Your task to perform on an android device: Open Chrome and go to settings Image 0: 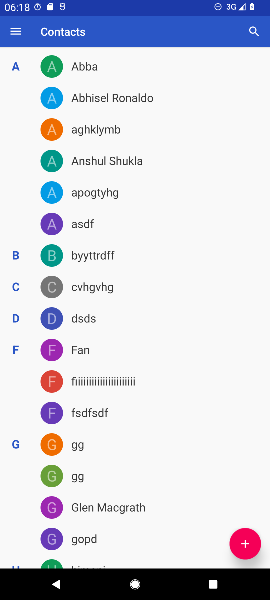
Step 0: press home button
Your task to perform on an android device: Open Chrome and go to settings Image 1: 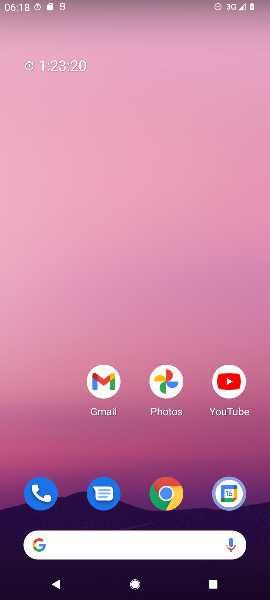
Step 1: drag from (69, 439) to (51, 199)
Your task to perform on an android device: Open Chrome and go to settings Image 2: 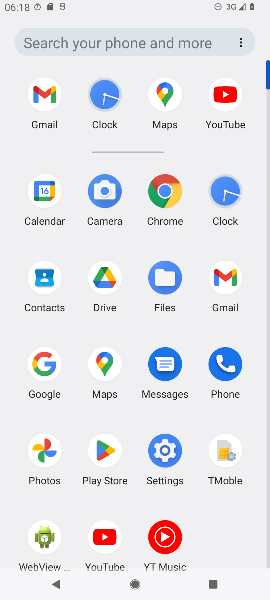
Step 2: click (154, 191)
Your task to perform on an android device: Open Chrome and go to settings Image 3: 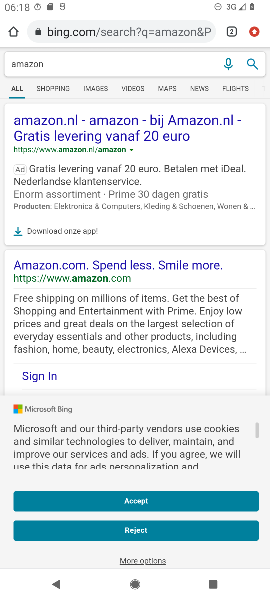
Step 3: click (255, 31)
Your task to perform on an android device: Open Chrome and go to settings Image 4: 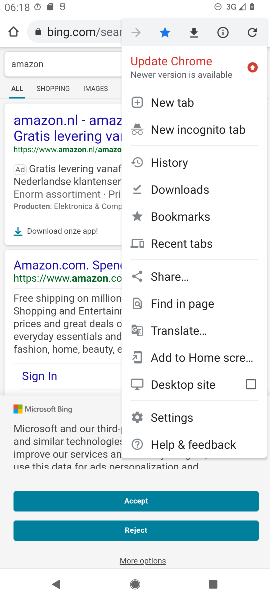
Step 4: click (194, 418)
Your task to perform on an android device: Open Chrome and go to settings Image 5: 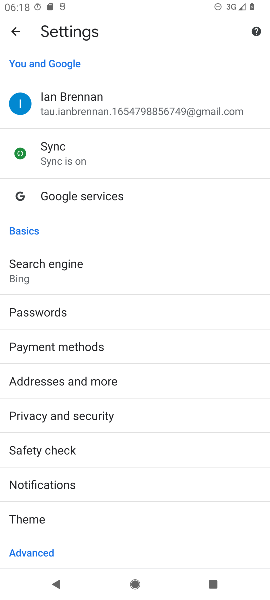
Step 5: task complete